Your task to perform on an android device: delete location history Image 0: 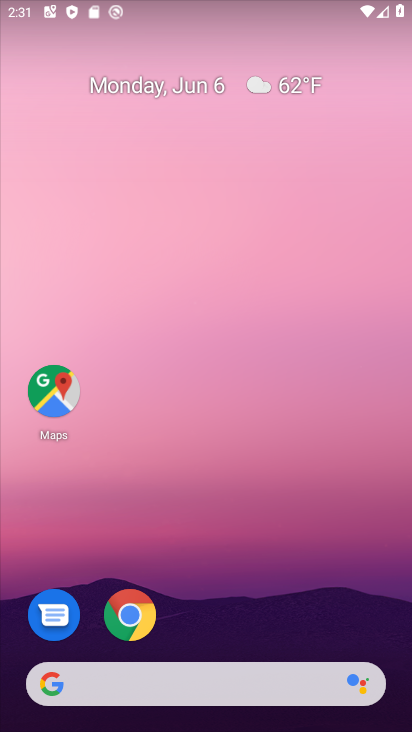
Step 0: drag from (198, 684) to (231, 169)
Your task to perform on an android device: delete location history Image 1: 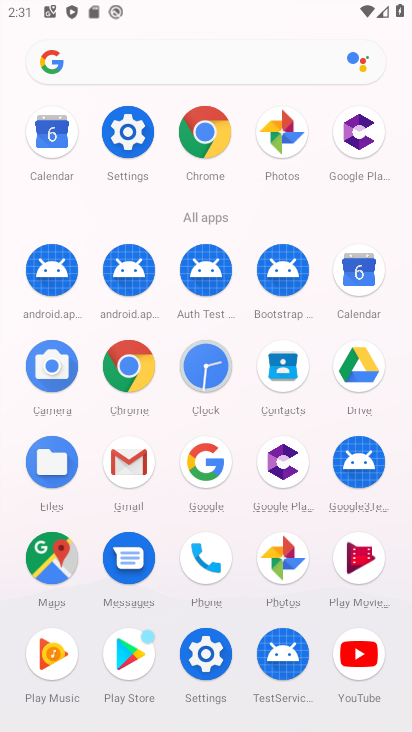
Step 1: click (54, 560)
Your task to perform on an android device: delete location history Image 2: 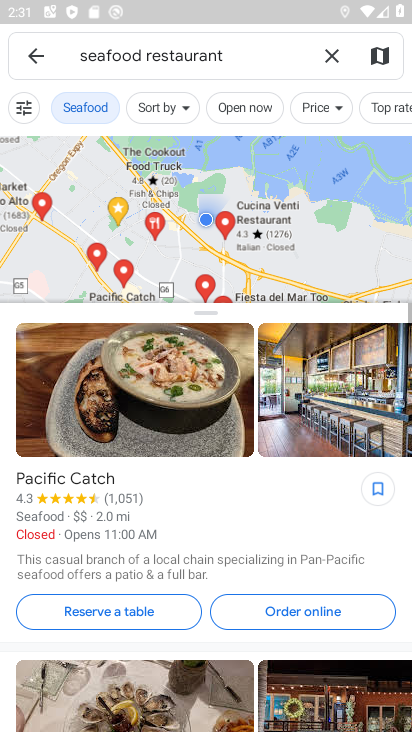
Step 2: press back button
Your task to perform on an android device: delete location history Image 3: 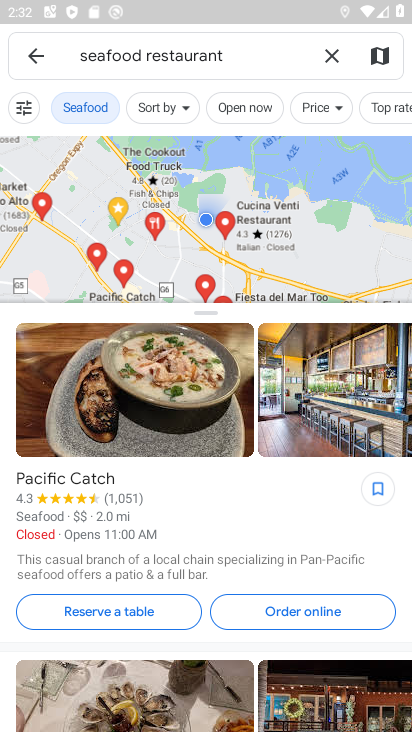
Step 3: press back button
Your task to perform on an android device: delete location history Image 4: 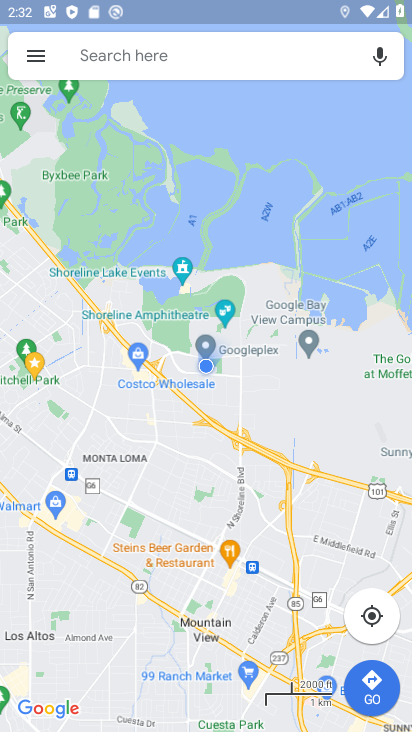
Step 4: click (23, 64)
Your task to perform on an android device: delete location history Image 5: 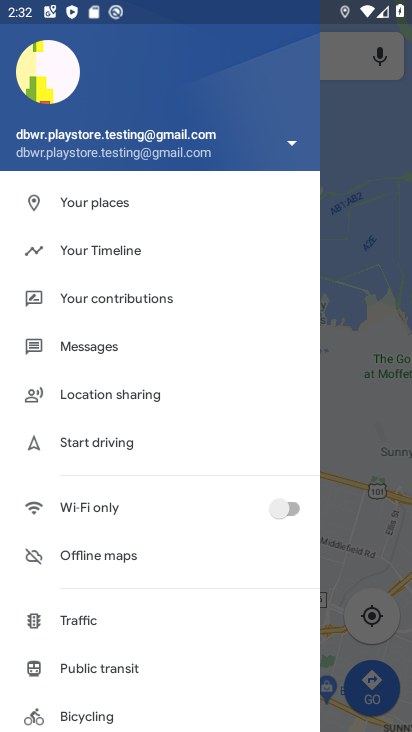
Step 5: drag from (198, 389) to (196, 334)
Your task to perform on an android device: delete location history Image 6: 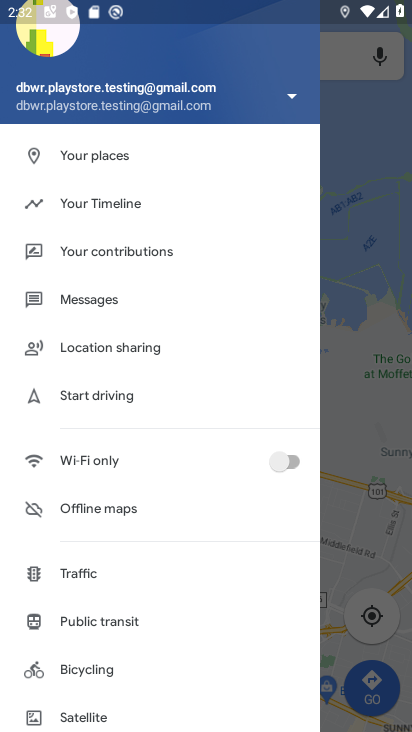
Step 6: click (124, 194)
Your task to perform on an android device: delete location history Image 7: 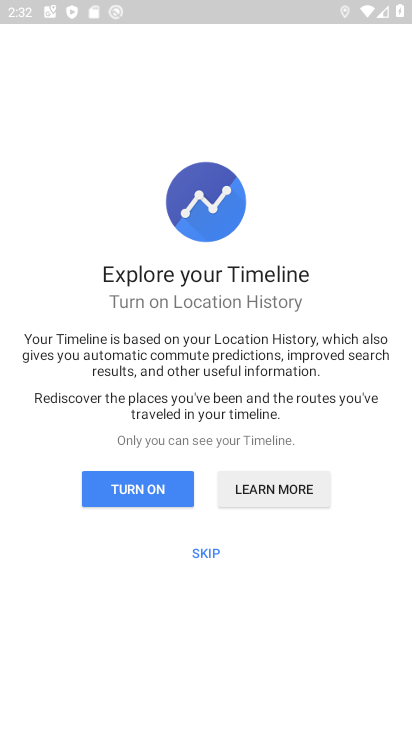
Step 7: click (202, 546)
Your task to perform on an android device: delete location history Image 8: 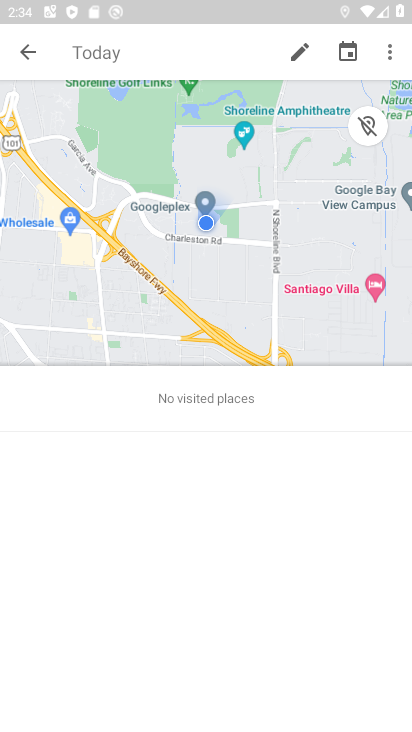
Step 8: click (396, 49)
Your task to perform on an android device: delete location history Image 9: 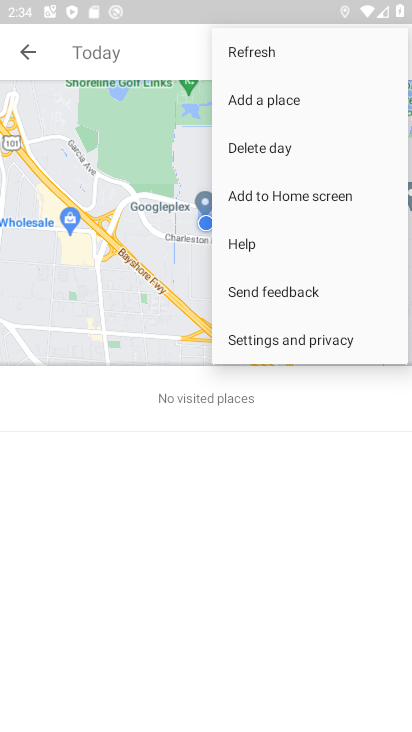
Step 9: click (283, 341)
Your task to perform on an android device: delete location history Image 10: 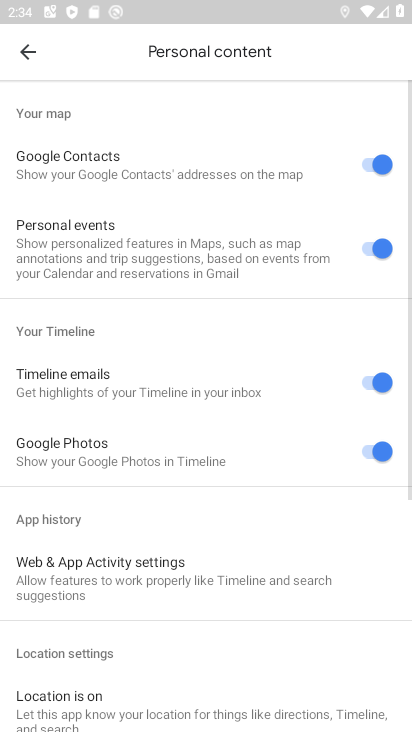
Step 10: drag from (230, 660) to (207, 23)
Your task to perform on an android device: delete location history Image 11: 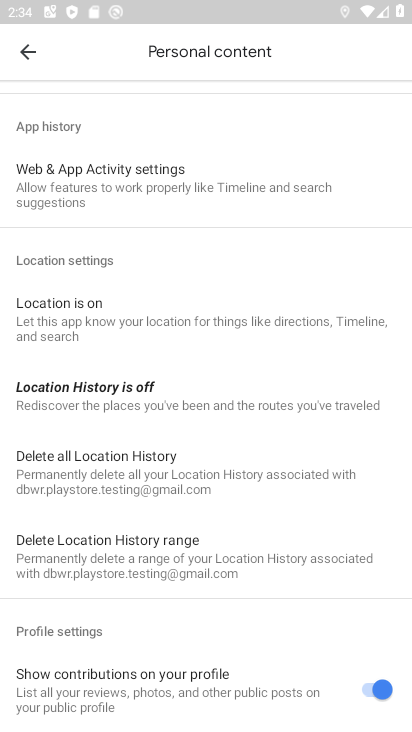
Step 11: click (147, 480)
Your task to perform on an android device: delete location history Image 12: 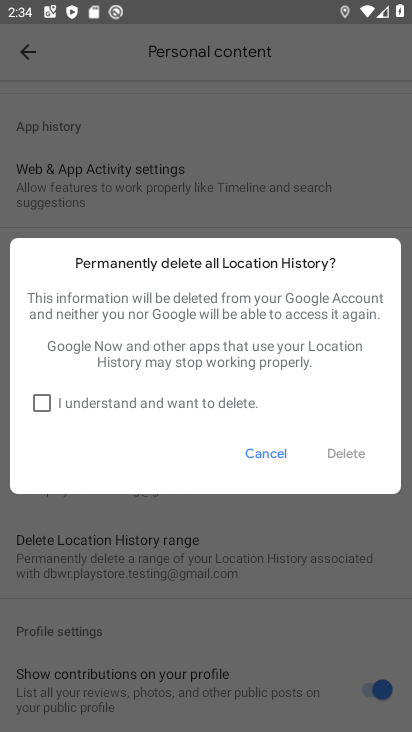
Step 12: click (41, 399)
Your task to perform on an android device: delete location history Image 13: 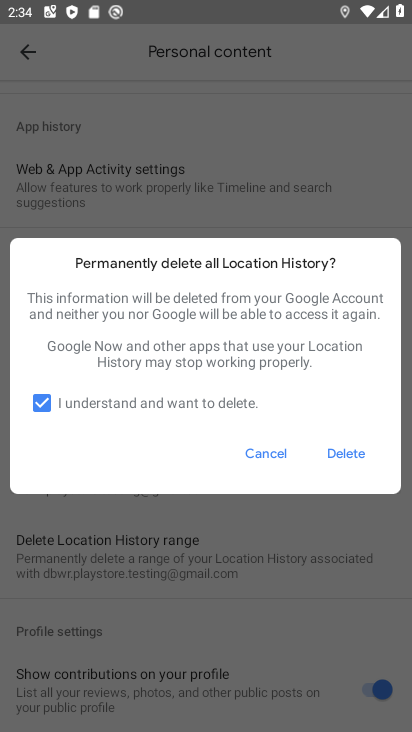
Step 13: click (342, 457)
Your task to perform on an android device: delete location history Image 14: 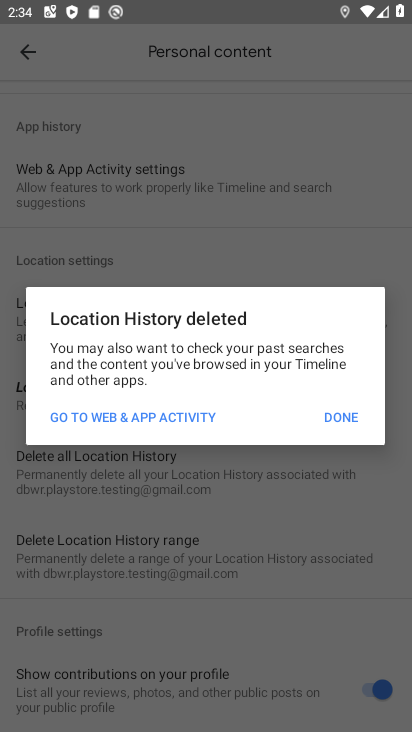
Step 14: click (349, 415)
Your task to perform on an android device: delete location history Image 15: 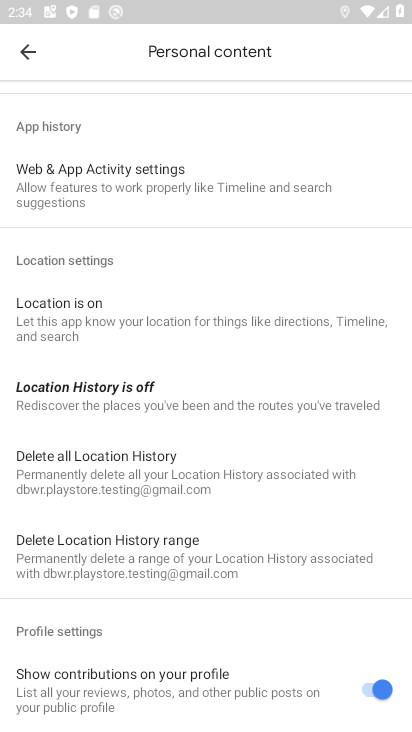
Step 15: task complete